Your task to perform on an android device: Open settings Image 0: 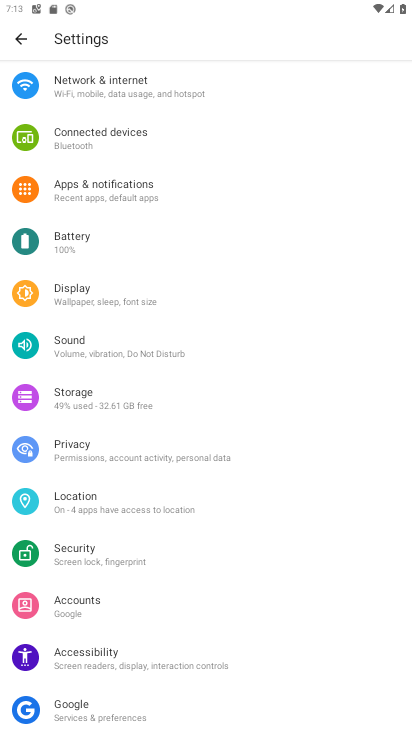
Step 0: drag from (172, 502) to (177, 63)
Your task to perform on an android device: Open settings Image 1: 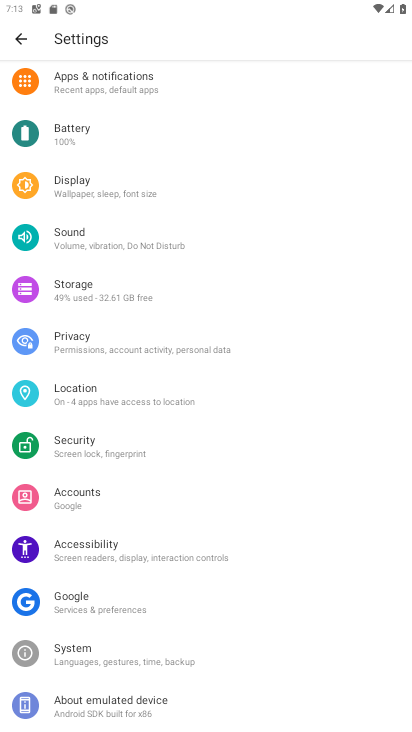
Step 1: task complete